Your task to perform on an android device: open app "Spotify: Music and Podcasts" (install if not already installed), go to login, and select forgot password Image 0: 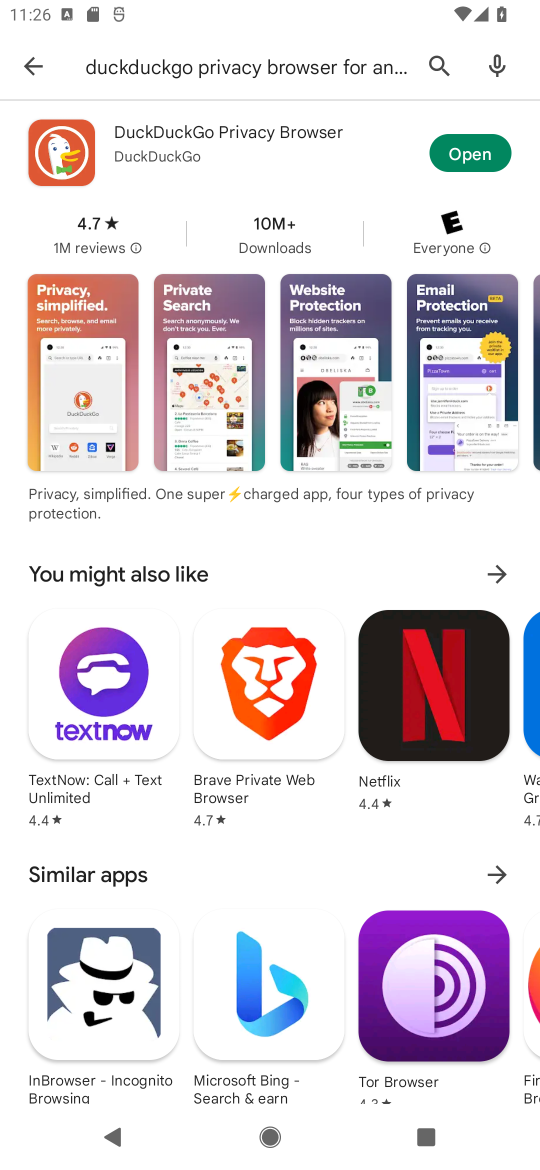
Step 0: press home button
Your task to perform on an android device: open app "Spotify: Music and Podcasts" (install if not already installed), go to login, and select forgot password Image 1: 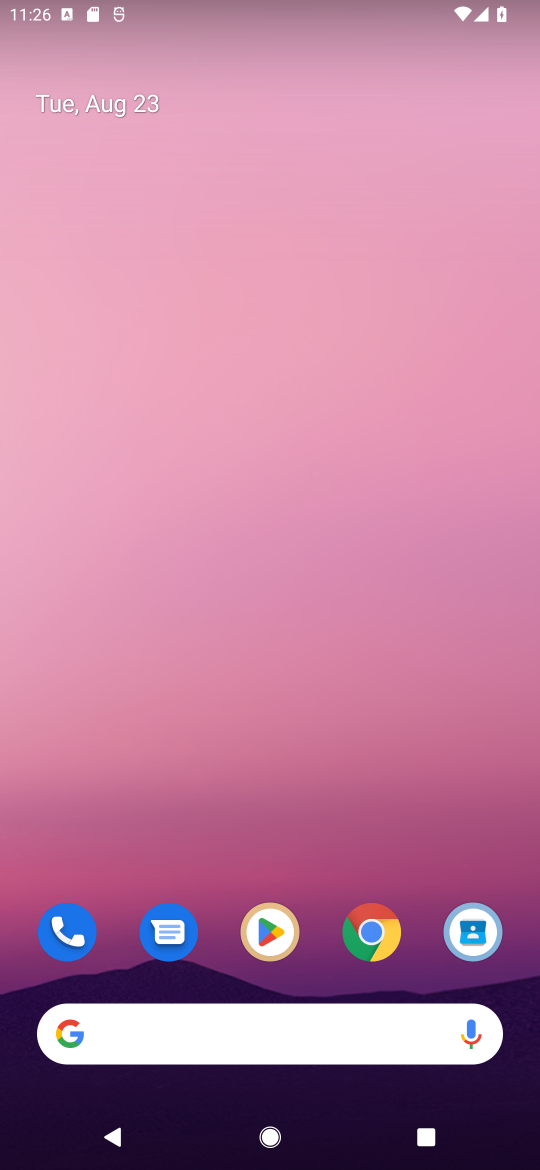
Step 1: click (258, 924)
Your task to perform on an android device: open app "Spotify: Music and Podcasts" (install if not already installed), go to login, and select forgot password Image 2: 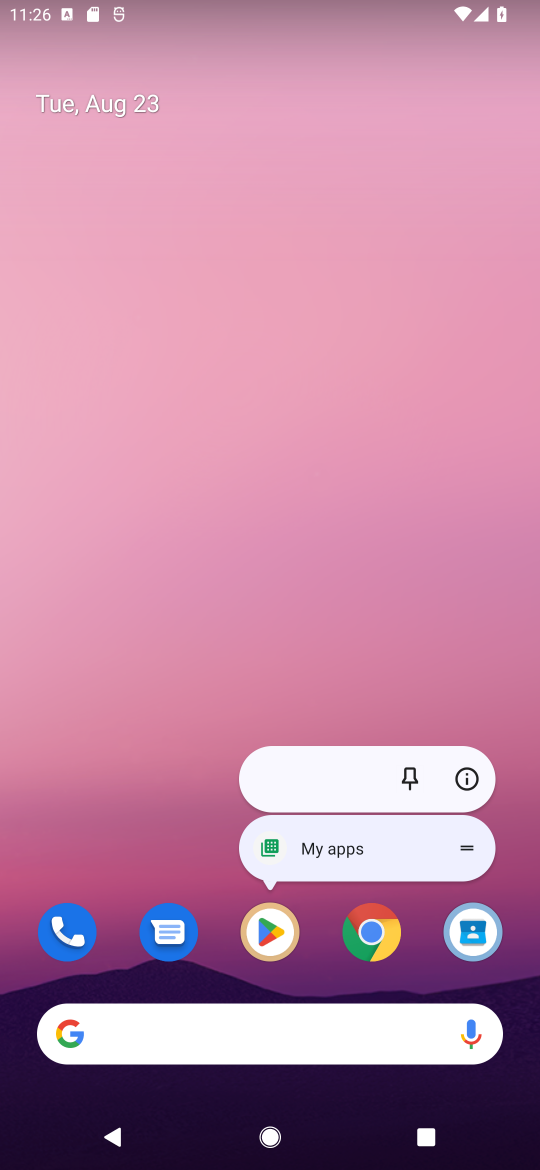
Step 2: click (274, 929)
Your task to perform on an android device: open app "Spotify: Music and Podcasts" (install if not already installed), go to login, and select forgot password Image 3: 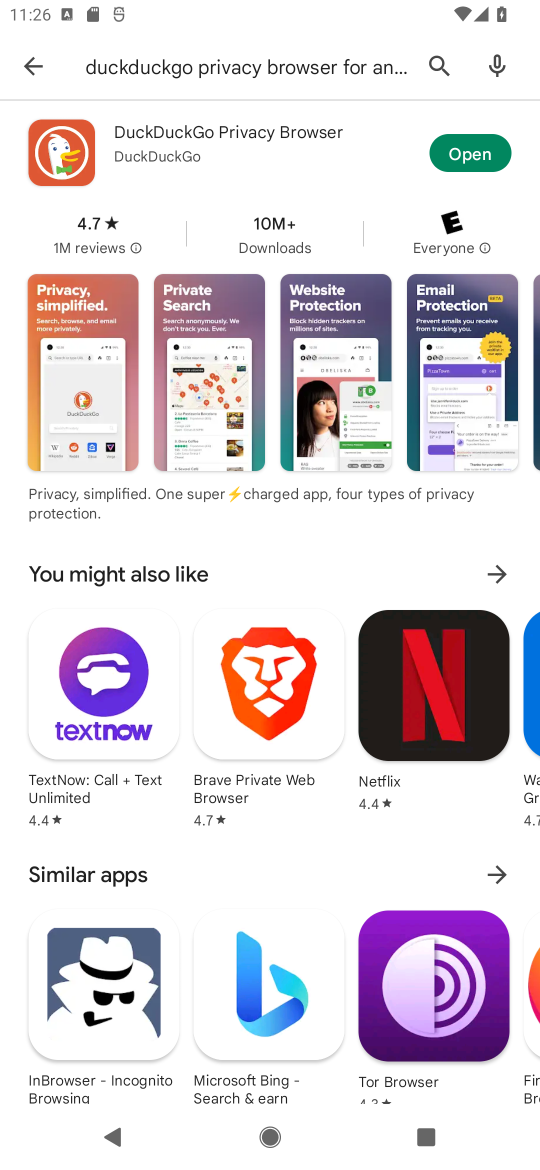
Step 3: click (409, 51)
Your task to perform on an android device: open app "Spotify: Music and Podcasts" (install if not already installed), go to login, and select forgot password Image 4: 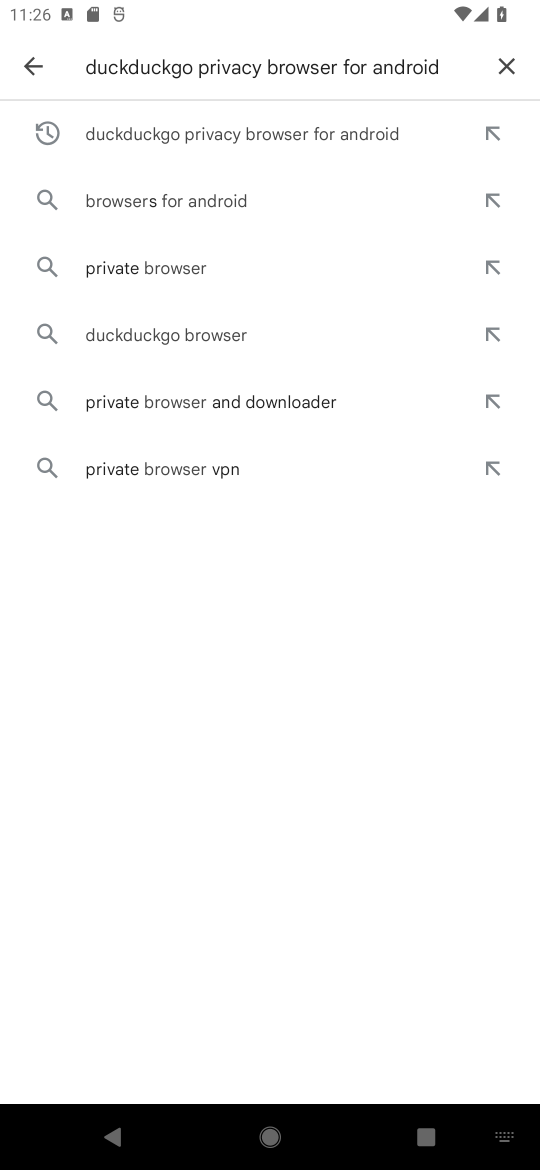
Step 4: click (513, 63)
Your task to perform on an android device: open app "Spotify: Music and Podcasts" (install if not already installed), go to login, and select forgot password Image 5: 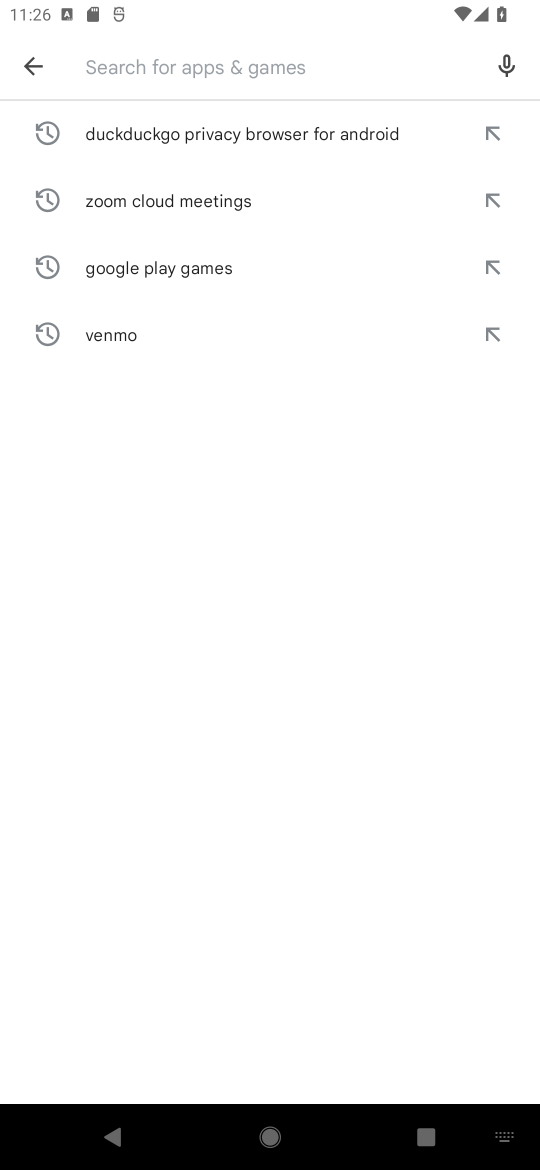
Step 5: click (162, 64)
Your task to perform on an android device: open app "Spotify: Music and Podcasts" (install if not already installed), go to login, and select forgot password Image 6: 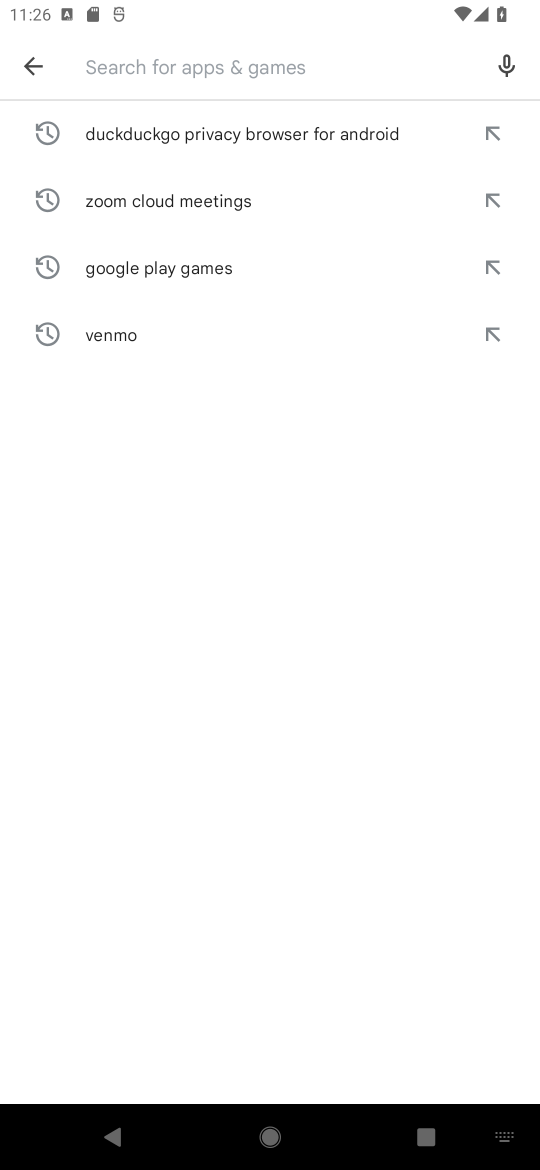
Step 6: type "Spotify"
Your task to perform on an android device: open app "Spotify: Music and Podcasts" (install if not already installed), go to login, and select forgot password Image 7: 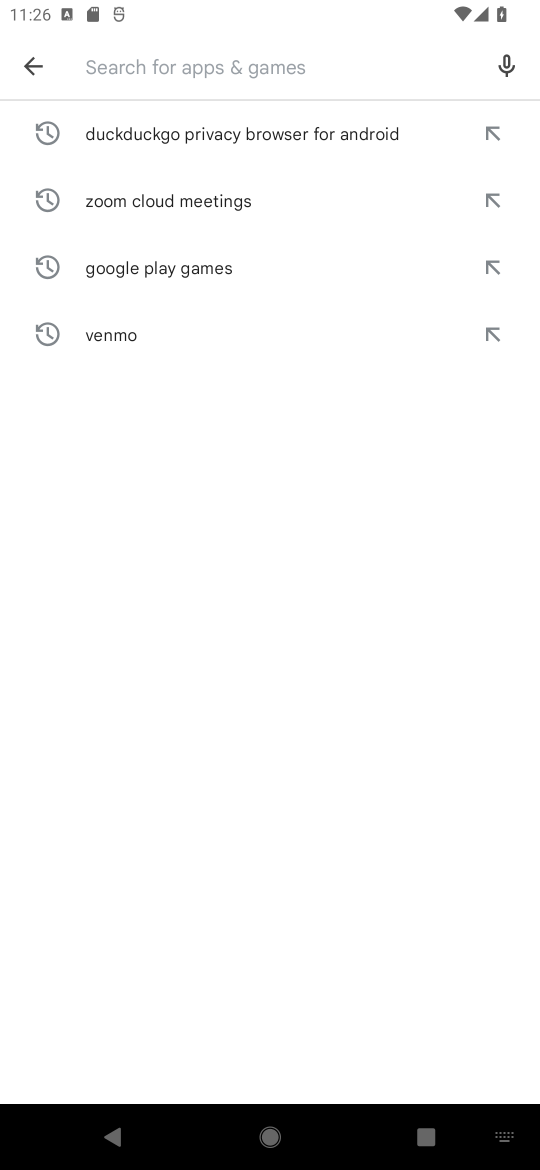
Step 7: click (397, 735)
Your task to perform on an android device: open app "Spotify: Music and Podcasts" (install if not already installed), go to login, and select forgot password Image 8: 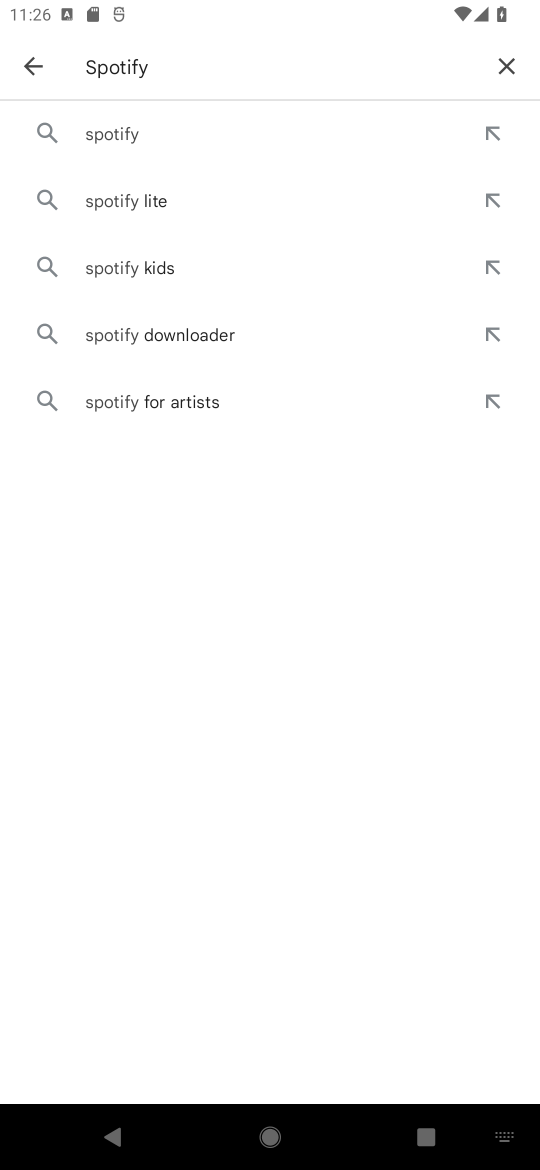
Step 8: click (139, 129)
Your task to perform on an android device: open app "Spotify: Music and Podcasts" (install if not already installed), go to login, and select forgot password Image 9: 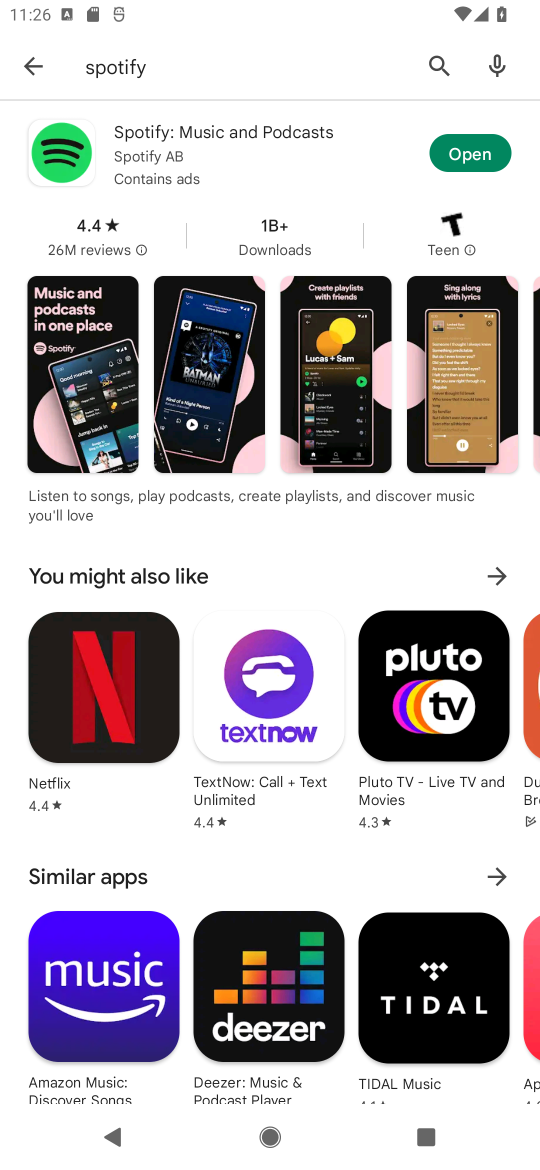
Step 9: click (466, 154)
Your task to perform on an android device: open app "Spotify: Music and Podcasts" (install if not already installed), go to login, and select forgot password Image 10: 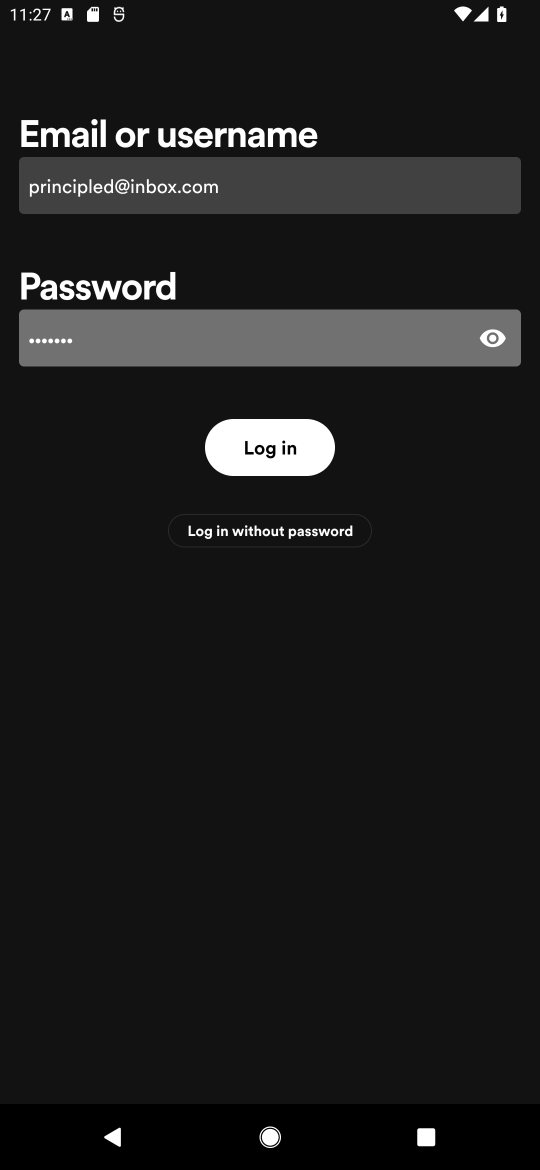
Step 10: click (273, 450)
Your task to perform on an android device: open app "Spotify: Music and Podcasts" (install if not already installed), go to login, and select forgot password Image 11: 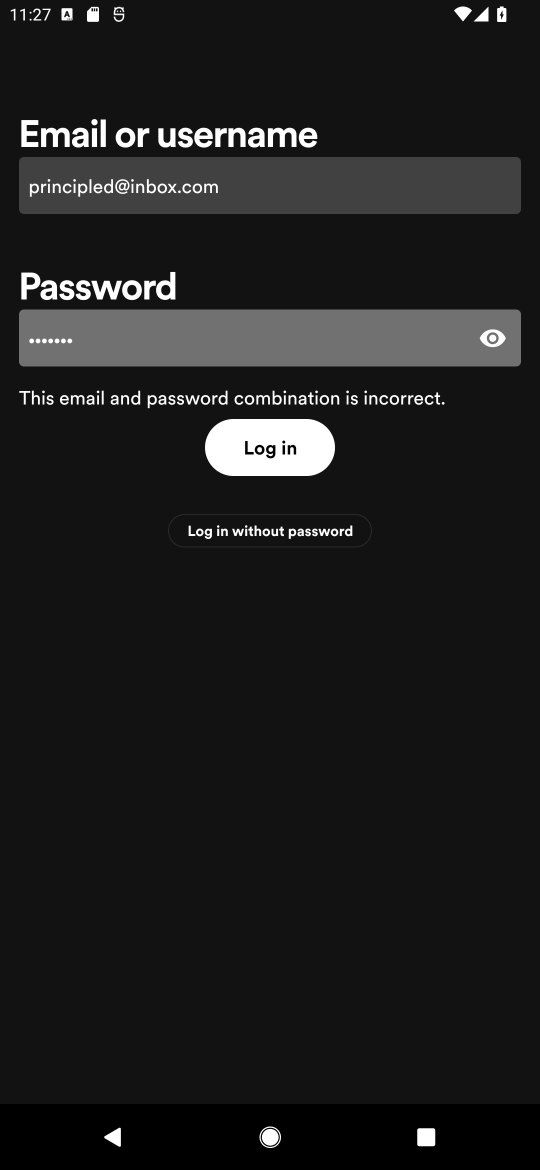
Step 11: task complete